Your task to perform on an android device: allow cookies in the chrome app Image 0: 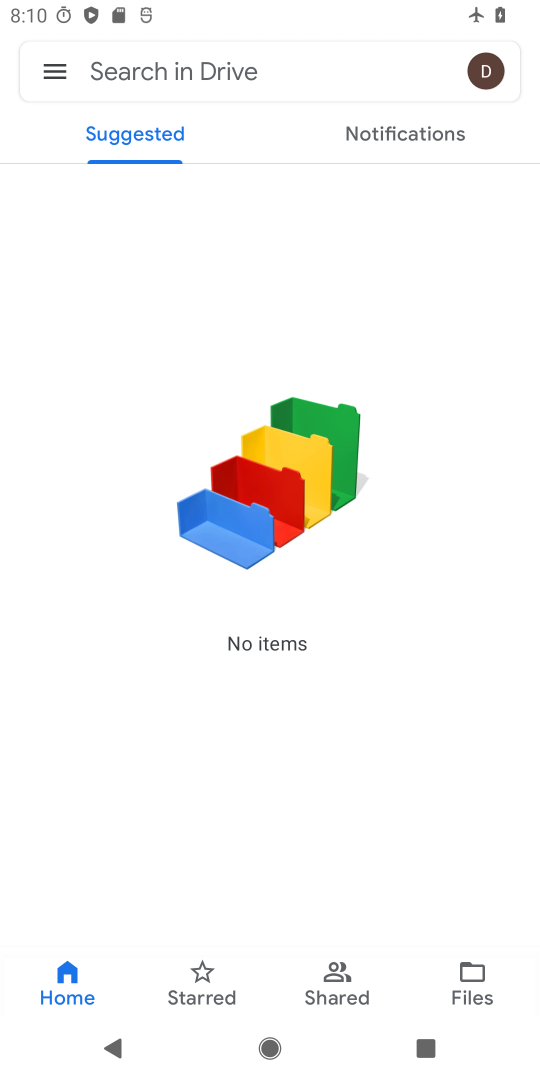
Step 0: press home button
Your task to perform on an android device: allow cookies in the chrome app Image 1: 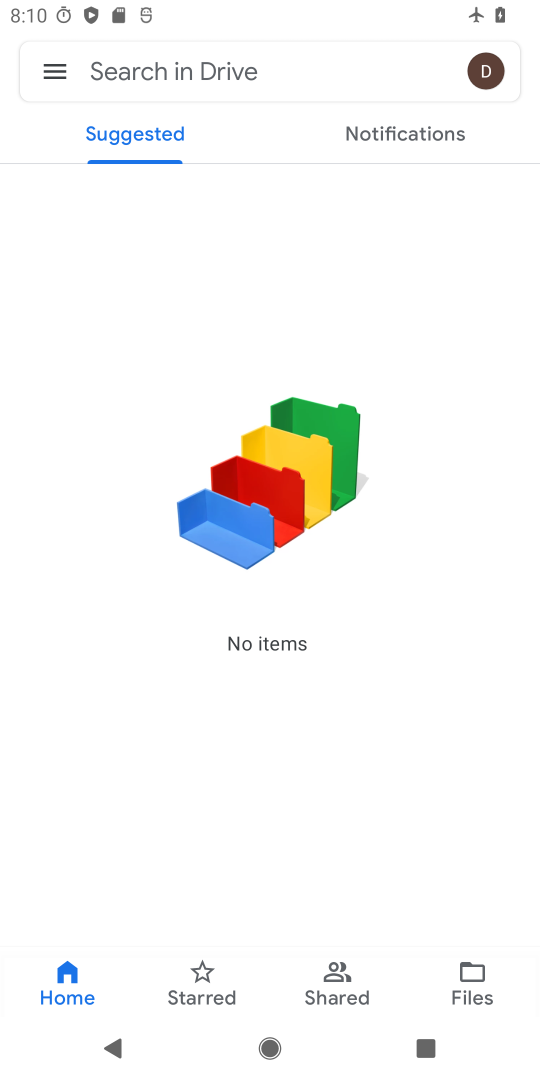
Step 1: press home button
Your task to perform on an android device: allow cookies in the chrome app Image 2: 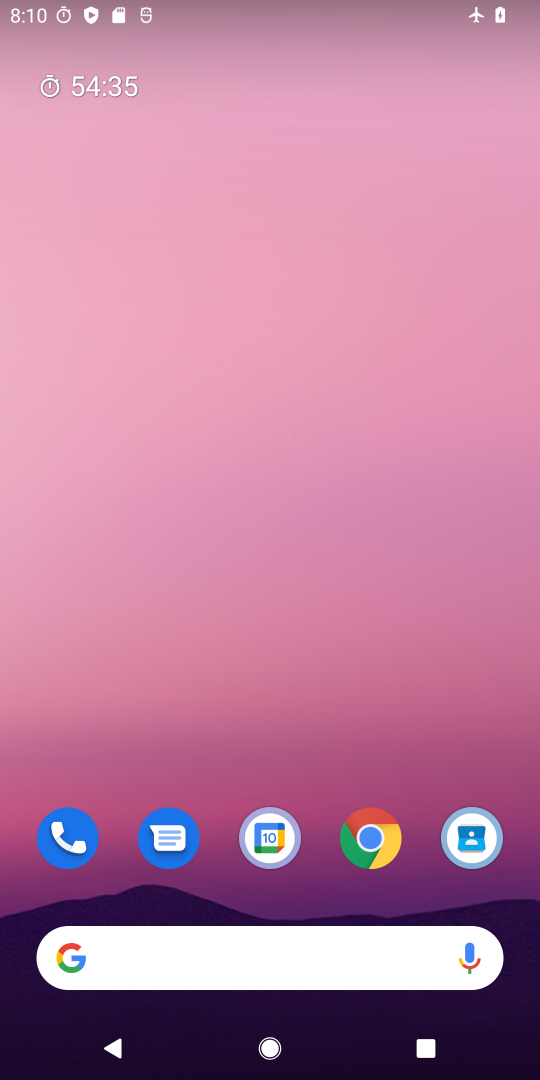
Step 2: drag from (402, 916) to (441, 135)
Your task to perform on an android device: allow cookies in the chrome app Image 3: 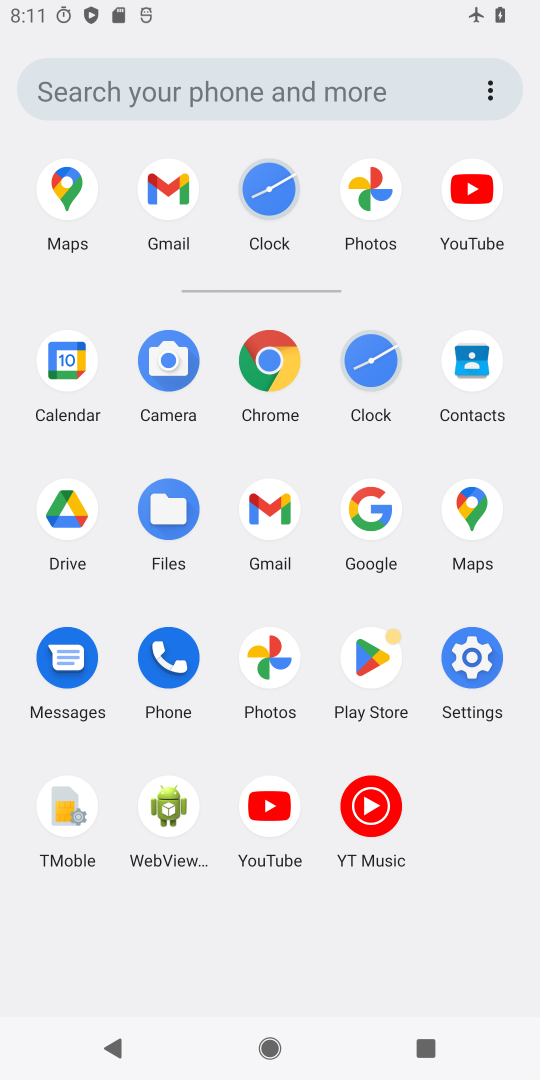
Step 3: click (282, 363)
Your task to perform on an android device: allow cookies in the chrome app Image 4: 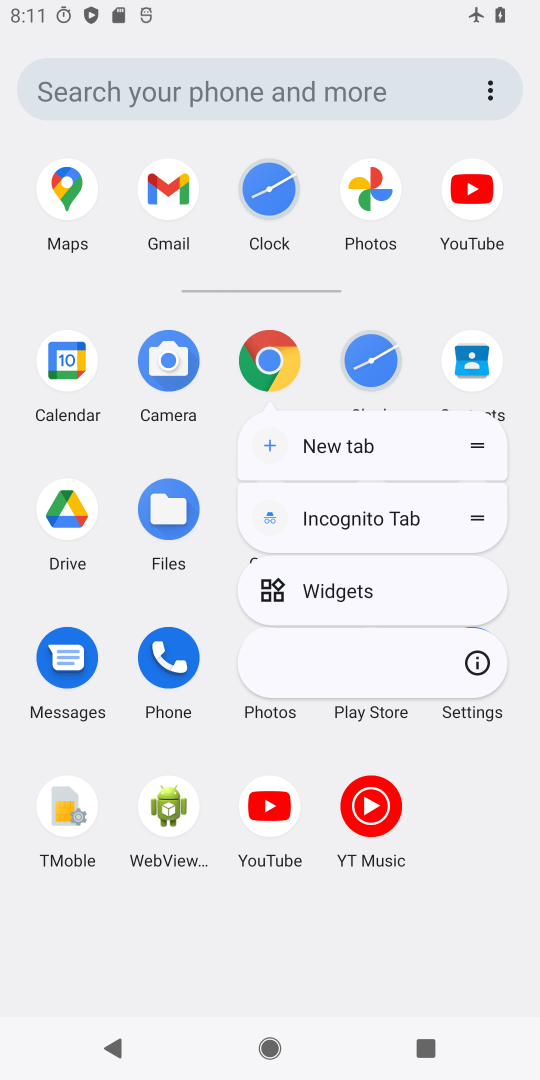
Step 4: click (282, 363)
Your task to perform on an android device: allow cookies in the chrome app Image 5: 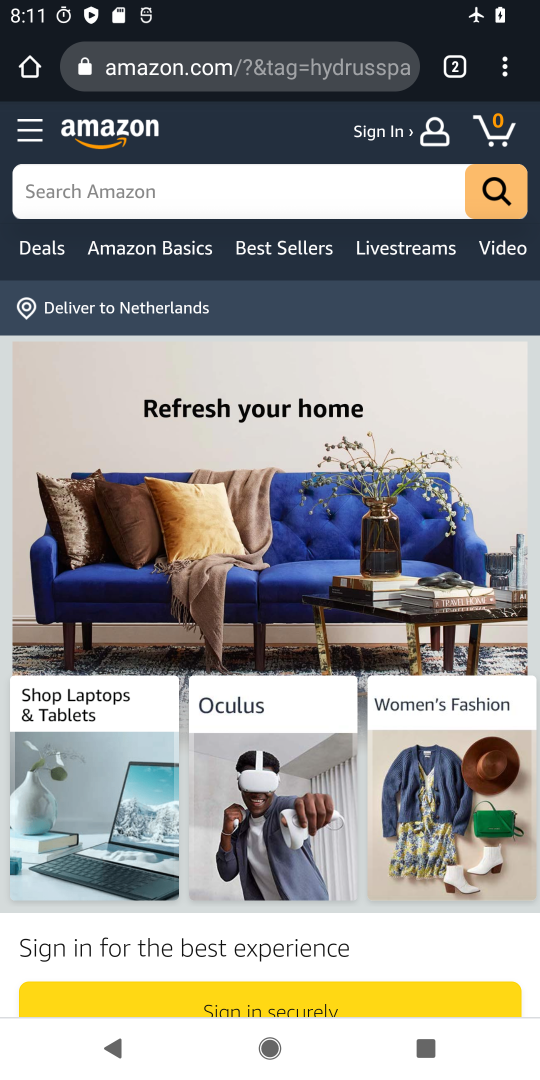
Step 5: drag from (512, 68) to (311, 848)
Your task to perform on an android device: allow cookies in the chrome app Image 6: 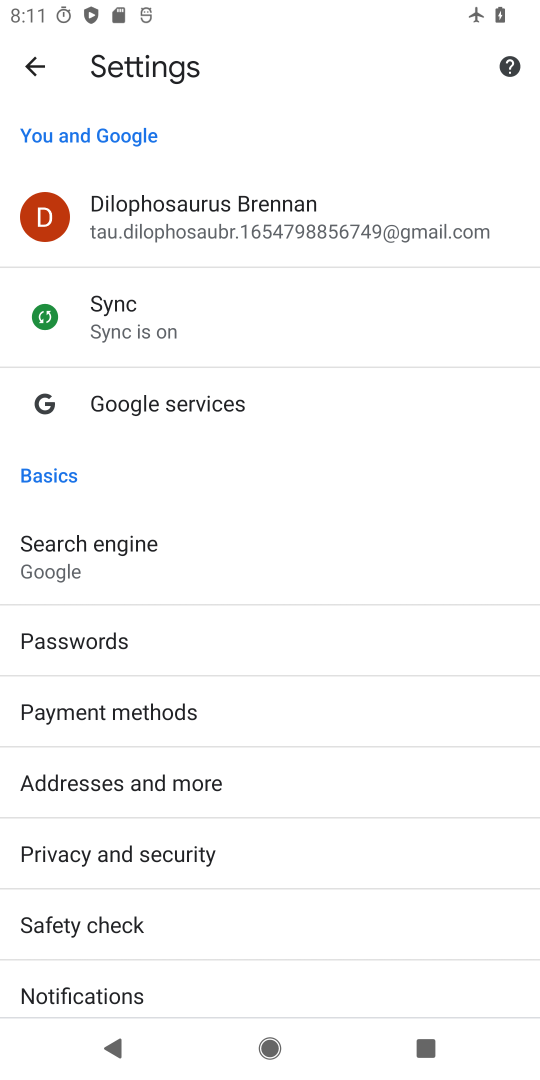
Step 6: drag from (337, 732) to (392, 131)
Your task to perform on an android device: allow cookies in the chrome app Image 7: 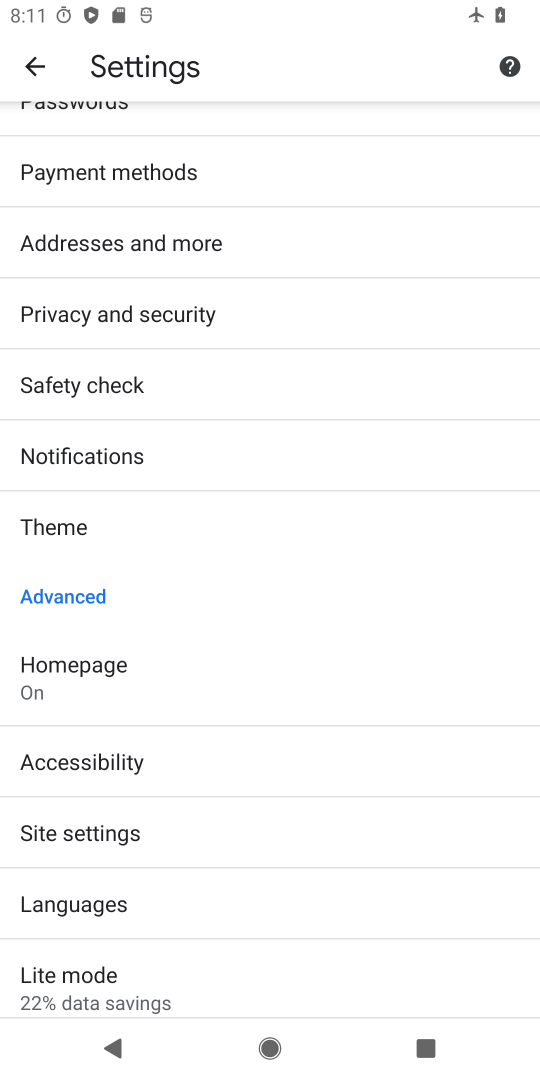
Step 7: click (74, 826)
Your task to perform on an android device: allow cookies in the chrome app Image 8: 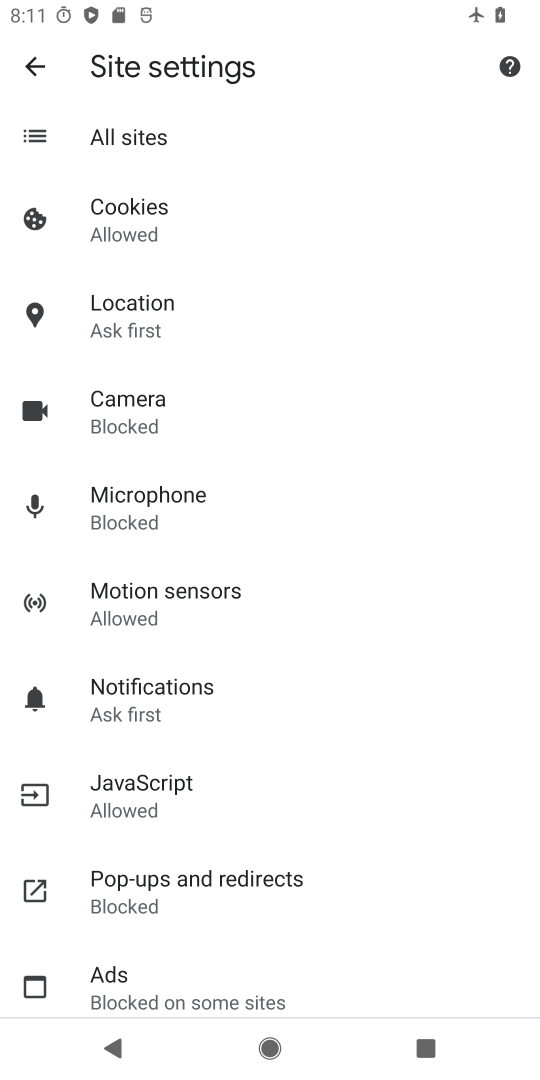
Step 8: click (120, 204)
Your task to perform on an android device: allow cookies in the chrome app Image 9: 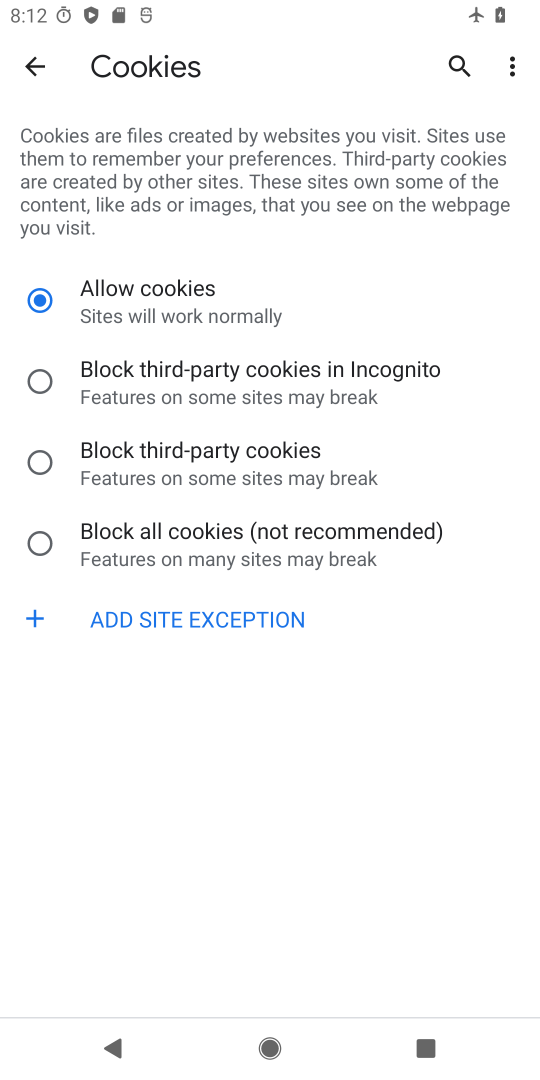
Step 9: click (291, 289)
Your task to perform on an android device: allow cookies in the chrome app Image 10: 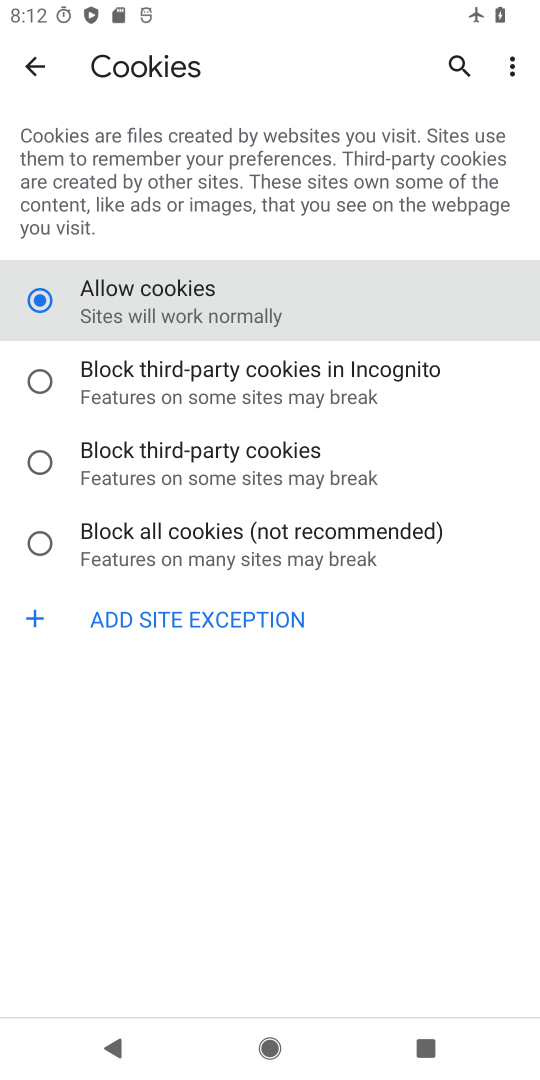
Step 10: task complete